Your task to perform on an android device: Open location settings Image 0: 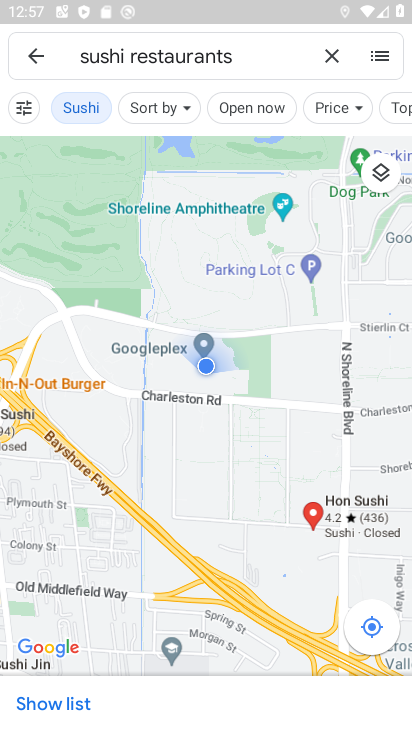
Step 0: task complete